Your task to perform on an android device: Do I have any events tomorrow? Image 0: 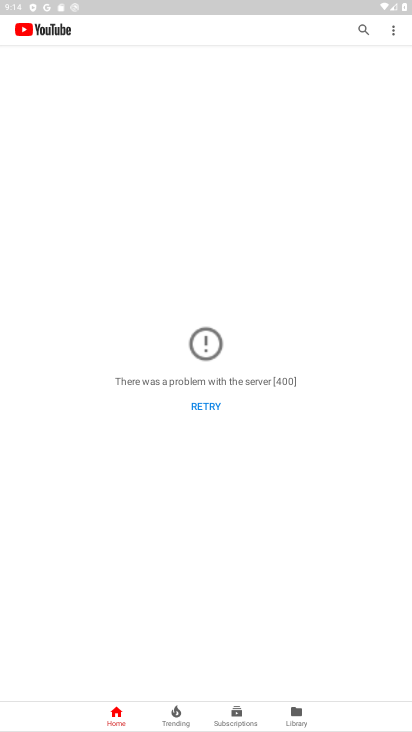
Step 0: press home button
Your task to perform on an android device: Do I have any events tomorrow? Image 1: 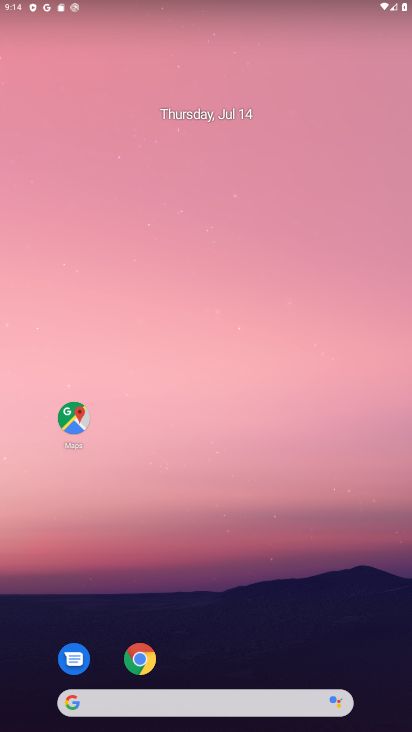
Step 1: drag from (280, 640) to (224, 261)
Your task to perform on an android device: Do I have any events tomorrow? Image 2: 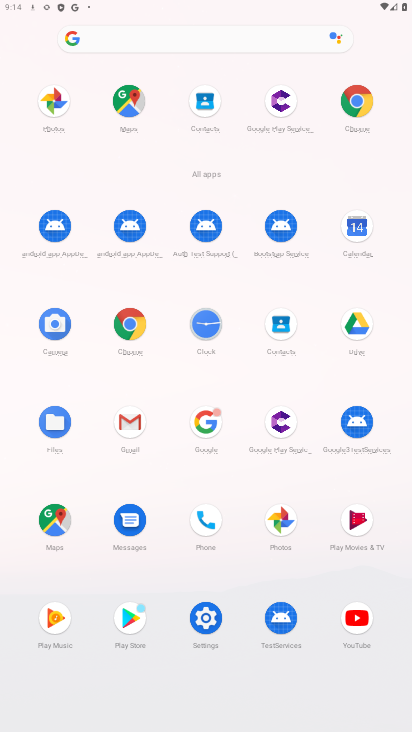
Step 2: click (362, 227)
Your task to perform on an android device: Do I have any events tomorrow? Image 3: 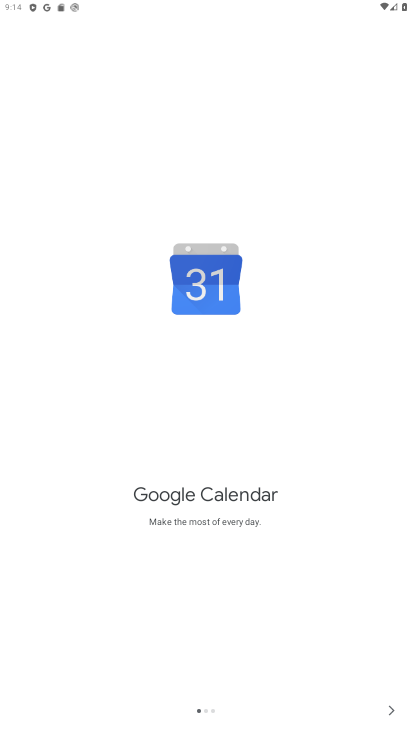
Step 3: click (389, 708)
Your task to perform on an android device: Do I have any events tomorrow? Image 4: 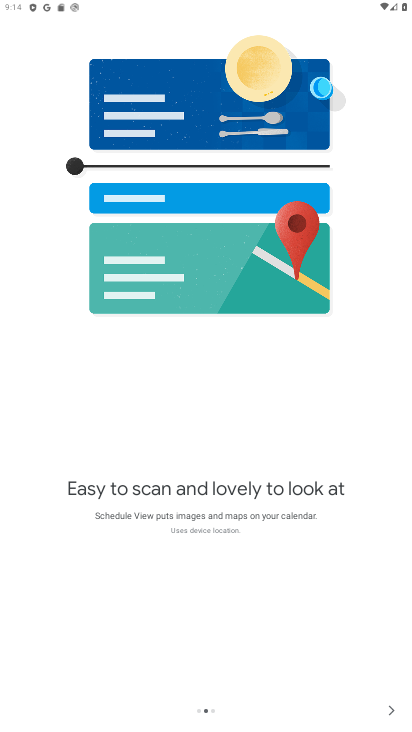
Step 4: click (389, 708)
Your task to perform on an android device: Do I have any events tomorrow? Image 5: 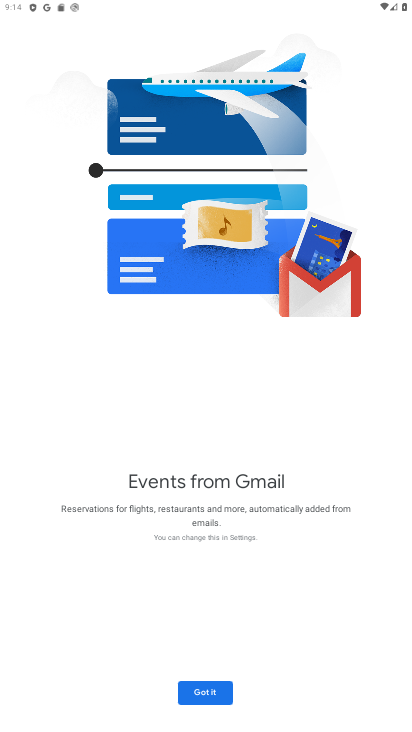
Step 5: click (215, 693)
Your task to perform on an android device: Do I have any events tomorrow? Image 6: 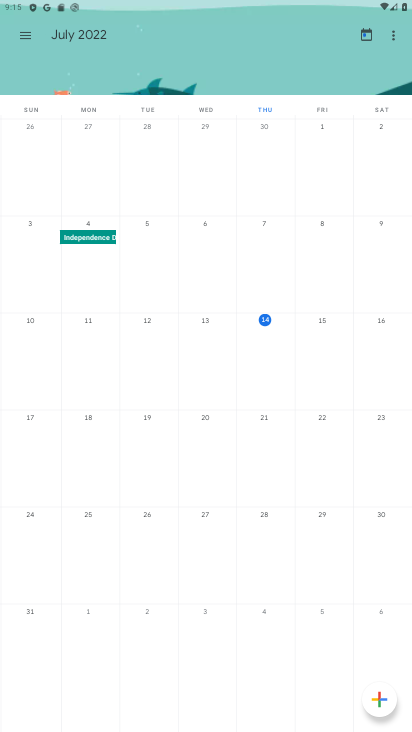
Step 6: click (25, 32)
Your task to perform on an android device: Do I have any events tomorrow? Image 7: 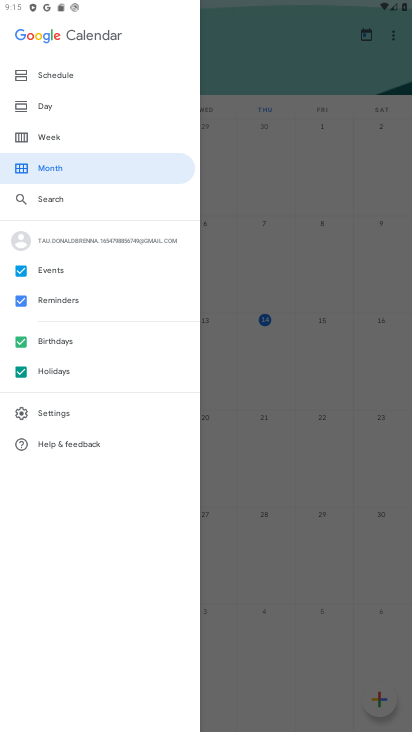
Step 7: click (70, 103)
Your task to perform on an android device: Do I have any events tomorrow? Image 8: 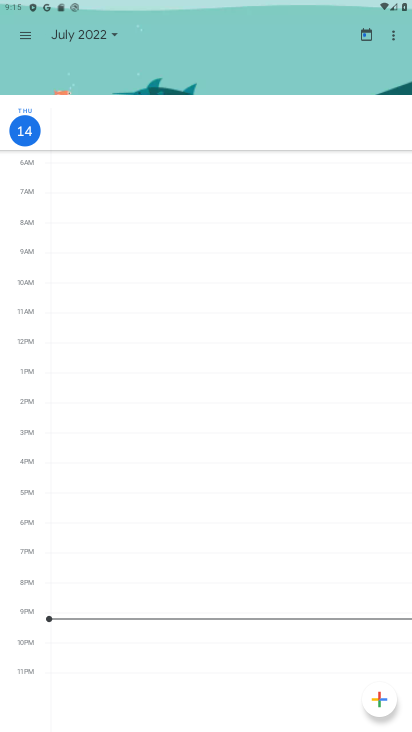
Step 8: click (93, 29)
Your task to perform on an android device: Do I have any events tomorrow? Image 9: 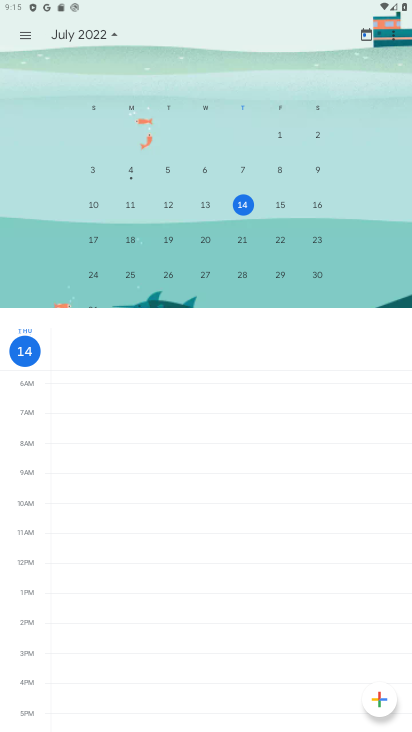
Step 9: click (280, 210)
Your task to perform on an android device: Do I have any events tomorrow? Image 10: 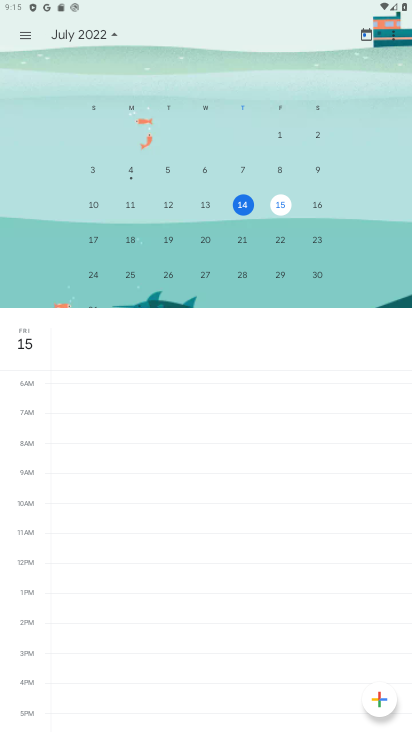
Step 10: task complete